Your task to perform on an android device: Open the calendar app, open the side menu, and click the "Day" option Image 0: 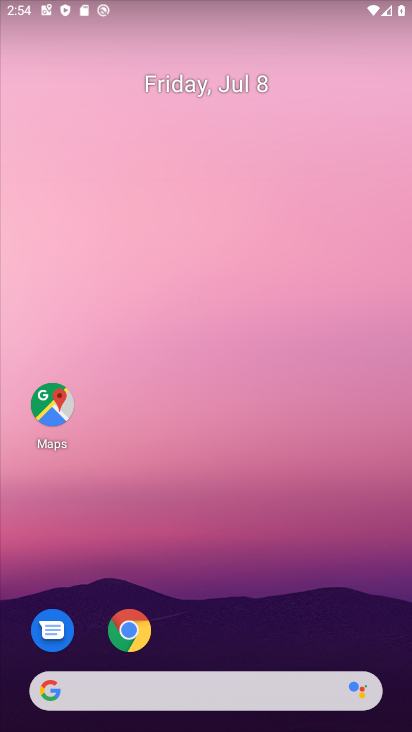
Step 0: drag from (290, 541) to (245, 187)
Your task to perform on an android device: Open the calendar app, open the side menu, and click the "Day" option Image 1: 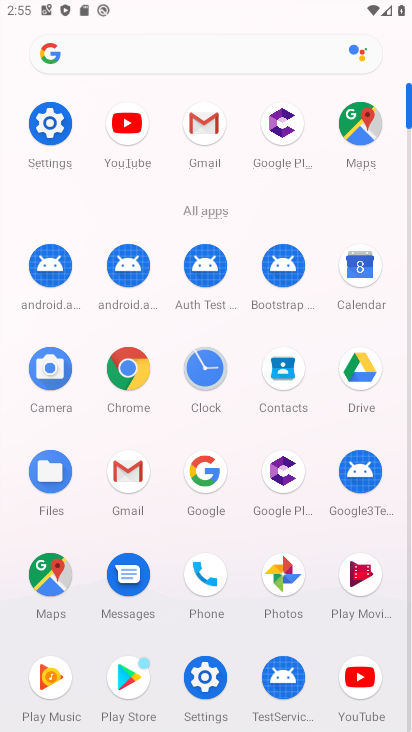
Step 1: click (364, 276)
Your task to perform on an android device: Open the calendar app, open the side menu, and click the "Day" option Image 2: 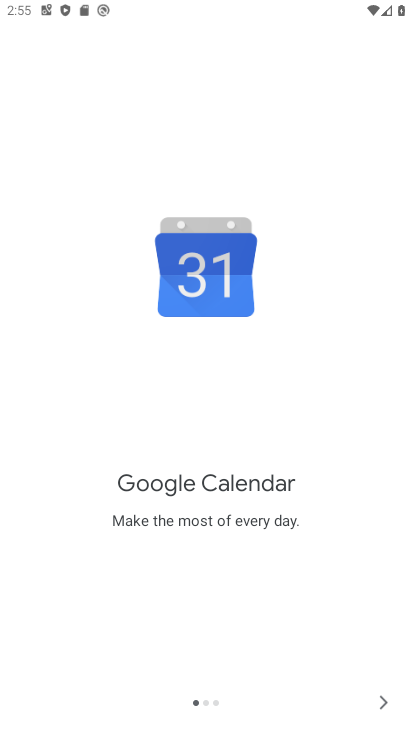
Step 2: click (371, 680)
Your task to perform on an android device: Open the calendar app, open the side menu, and click the "Day" option Image 3: 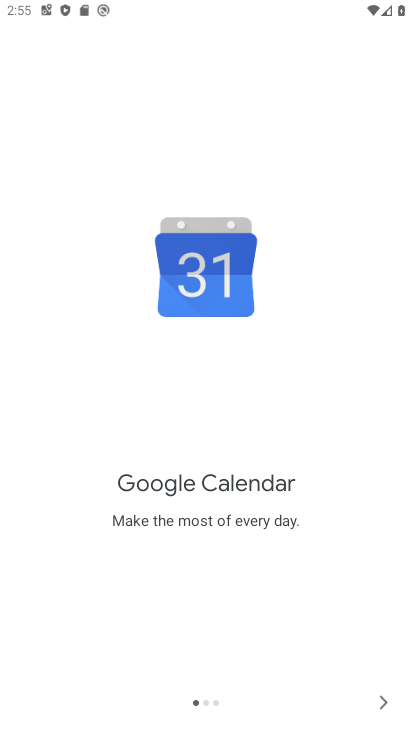
Step 3: click (375, 687)
Your task to perform on an android device: Open the calendar app, open the side menu, and click the "Day" option Image 4: 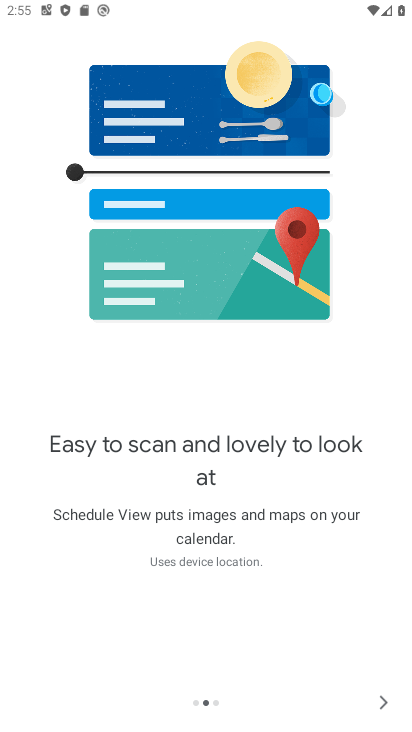
Step 4: click (386, 700)
Your task to perform on an android device: Open the calendar app, open the side menu, and click the "Day" option Image 5: 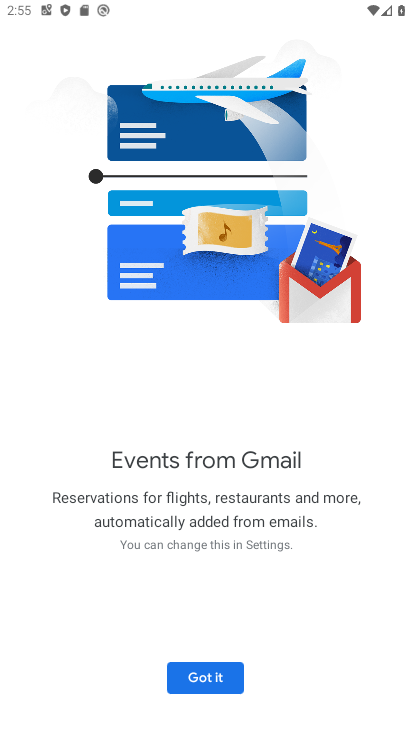
Step 5: click (218, 674)
Your task to perform on an android device: Open the calendar app, open the side menu, and click the "Day" option Image 6: 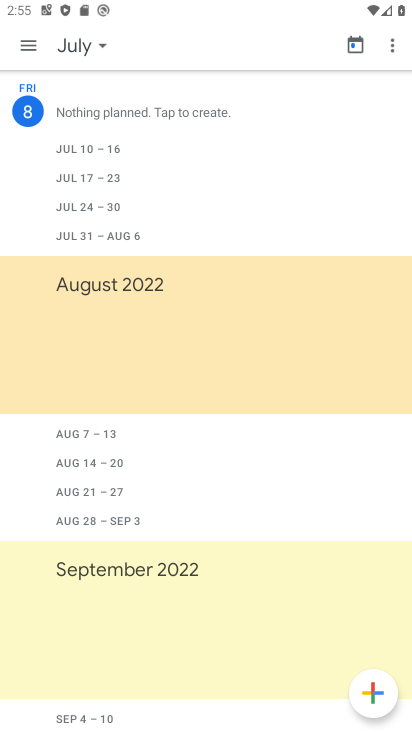
Step 6: click (23, 44)
Your task to perform on an android device: Open the calendar app, open the side menu, and click the "Day" option Image 7: 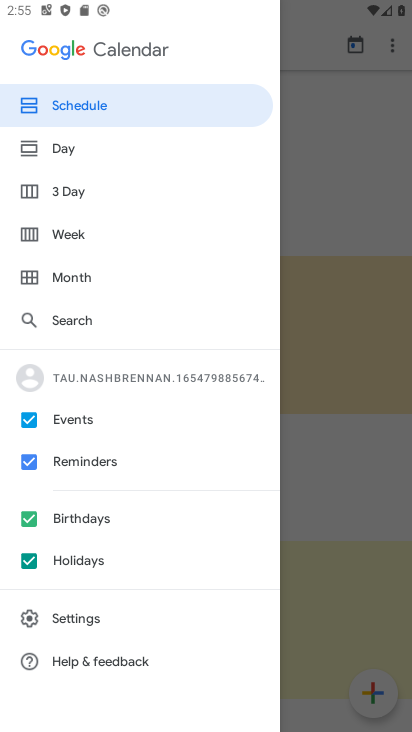
Step 7: click (58, 145)
Your task to perform on an android device: Open the calendar app, open the side menu, and click the "Day" option Image 8: 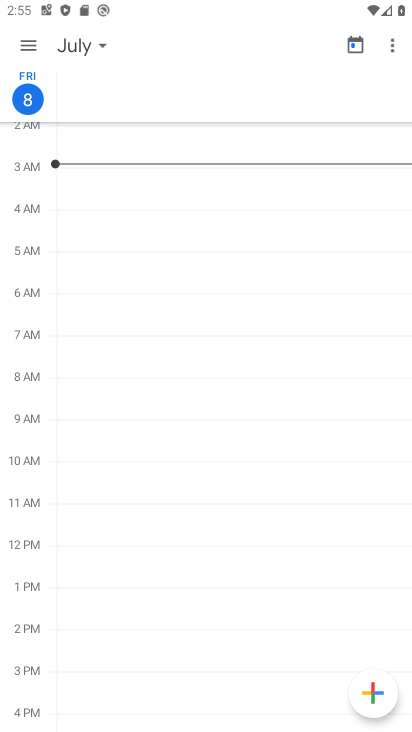
Step 8: task complete